Your task to perform on an android device: turn on airplane mode Image 0: 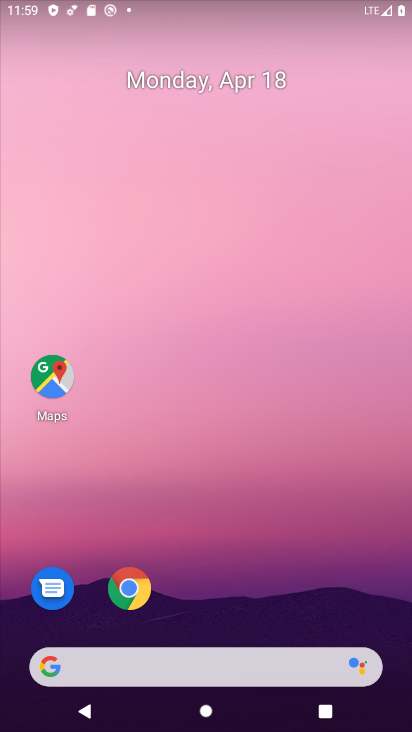
Step 0: drag from (354, 476) to (308, 15)
Your task to perform on an android device: turn on airplane mode Image 1: 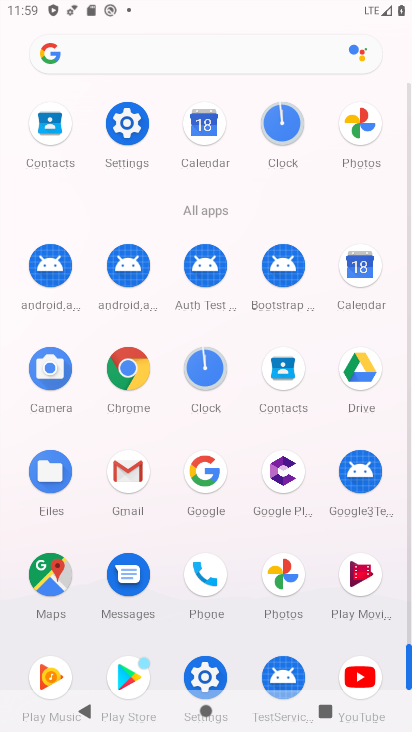
Step 1: click (127, 117)
Your task to perform on an android device: turn on airplane mode Image 2: 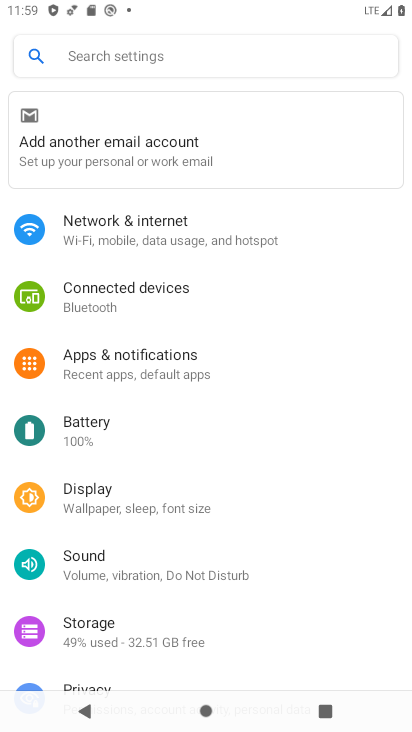
Step 2: click (200, 230)
Your task to perform on an android device: turn on airplane mode Image 3: 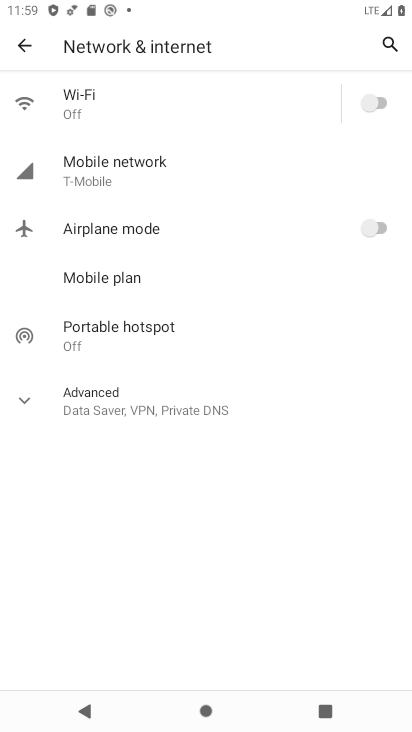
Step 3: click (366, 224)
Your task to perform on an android device: turn on airplane mode Image 4: 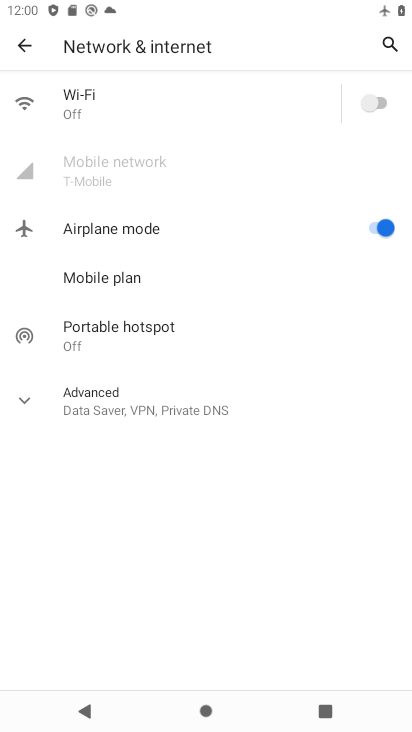
Step 4: task complete